Your task to perform on an android device: Add logitech g pro to the cart on bestbuy Image 0: 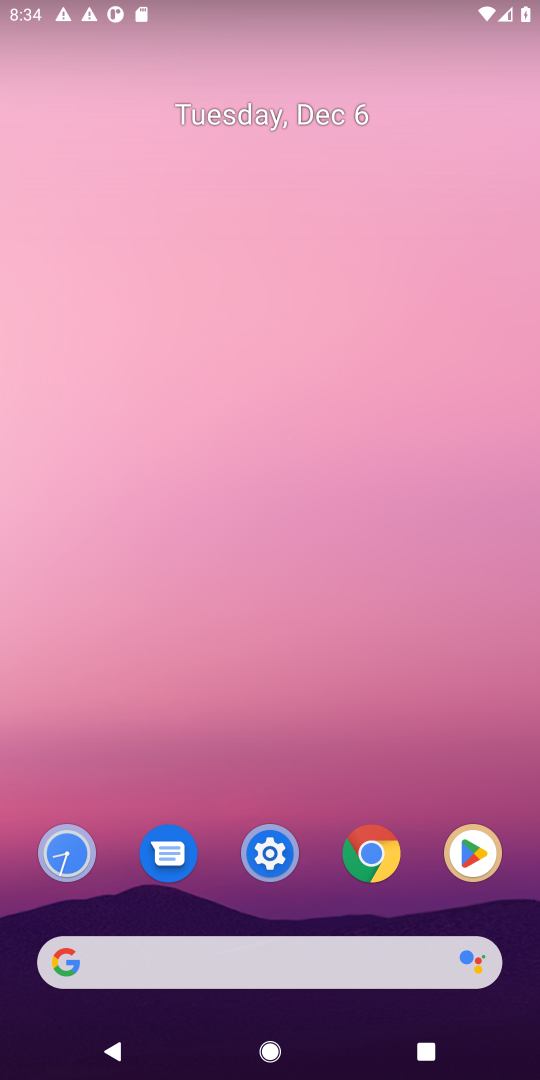
Step 0: drag from (254, 954) to (272, 167)
Your task to perform on an android device: Add logitech g pro to the cart on bestbuy Image 1: 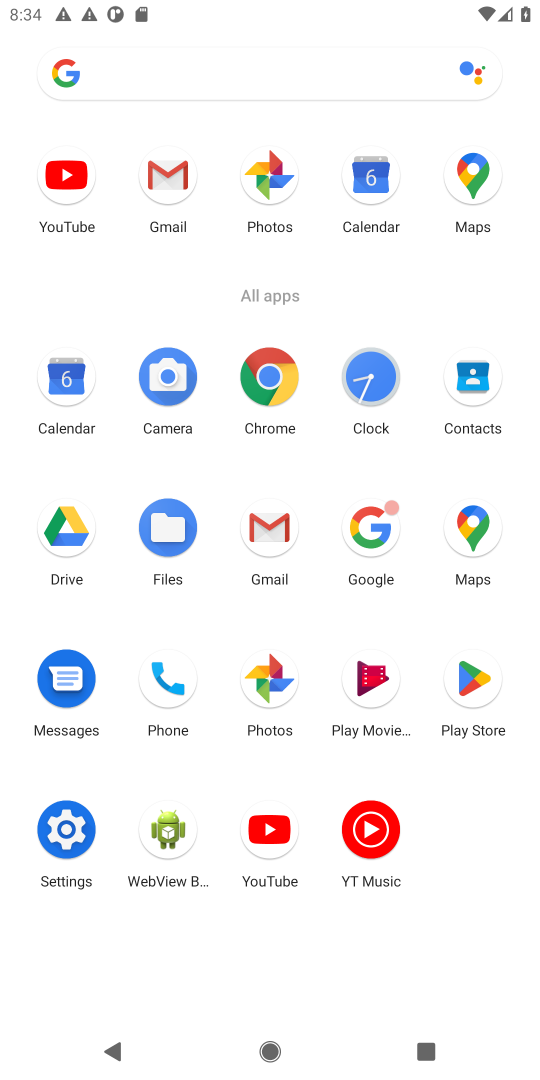
Step 1: click (373, 540)
Your task to perform on an android device: Add logitech g pro to the cart on bestbuy Image 2: 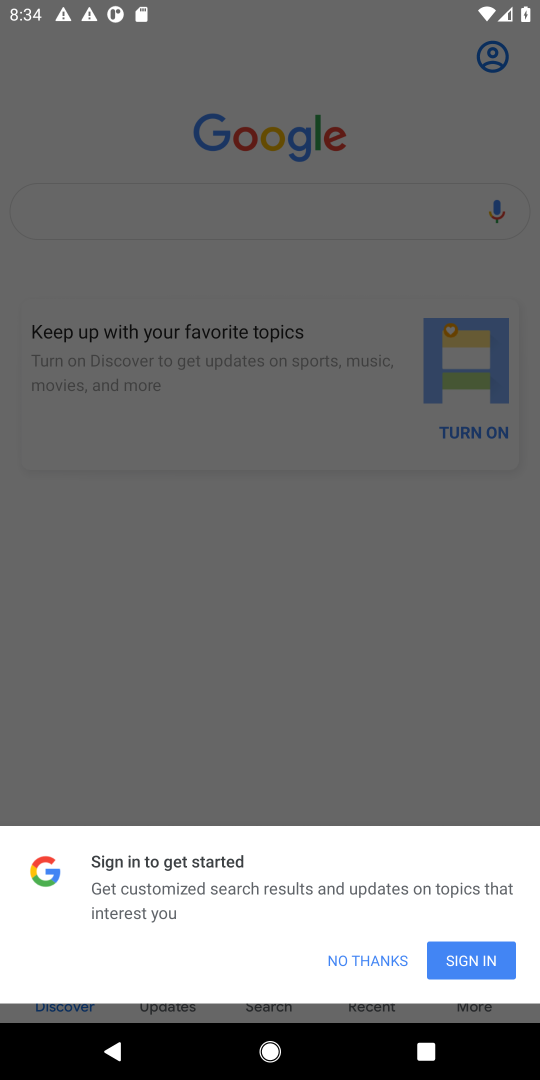
Step 2: click (366, 966)
Your task to perform on an android device: Add logitech g pro to the cart on bestbuy Image 3: 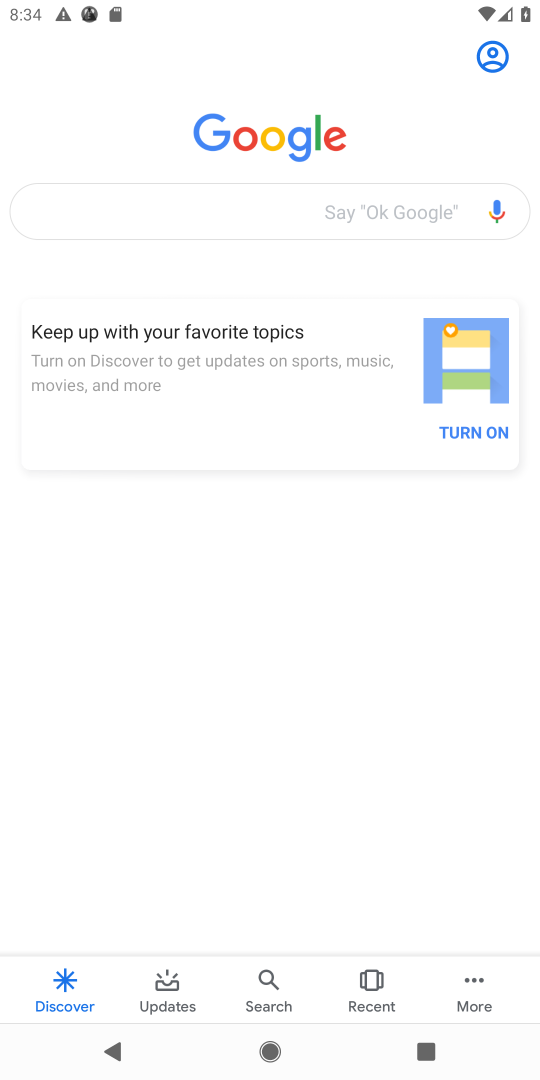
Step 3: click (213, 196)
Your task to perform on an android device: Add logitech g pro to the cart on bestbuy Image 4: 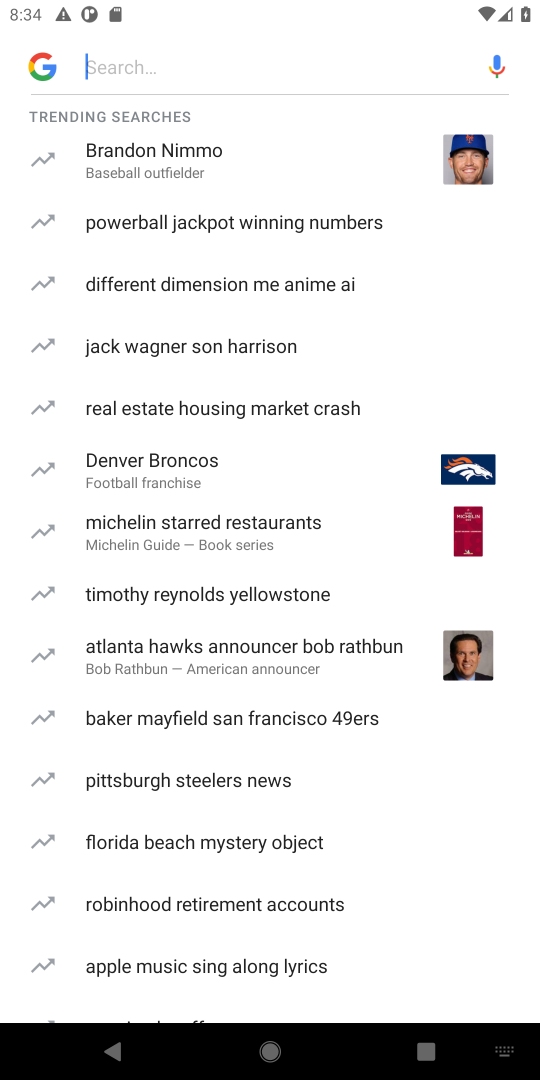
Step 4: type "bestbuy"
Your task to perform on an android device: Add logitech g pro to the cart on bestbuy Image 5: 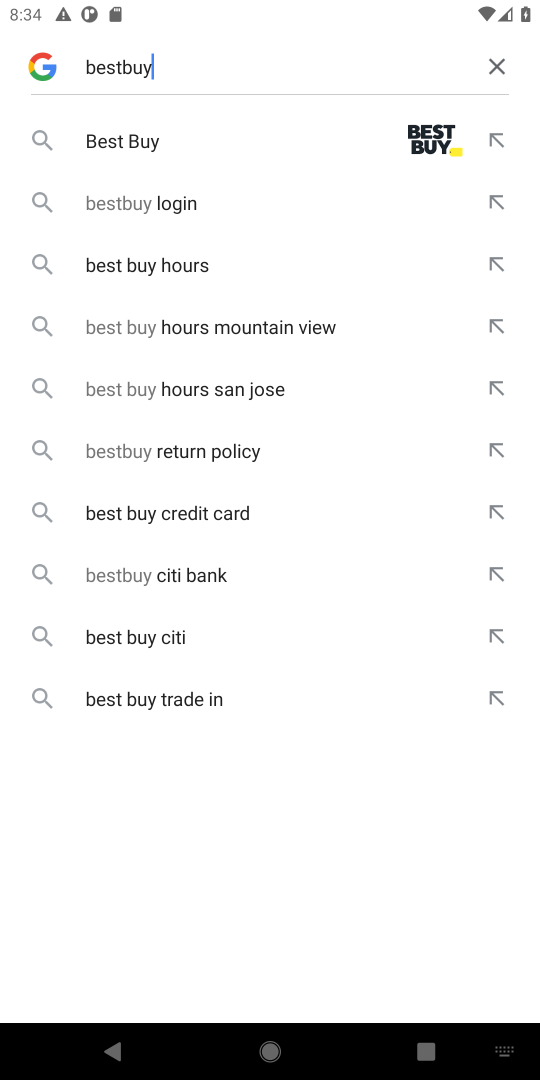
Step 5: click (127, 135)
Your task to perform on an android device: Add logitech g pro to the cart on bestbuy Image 6: 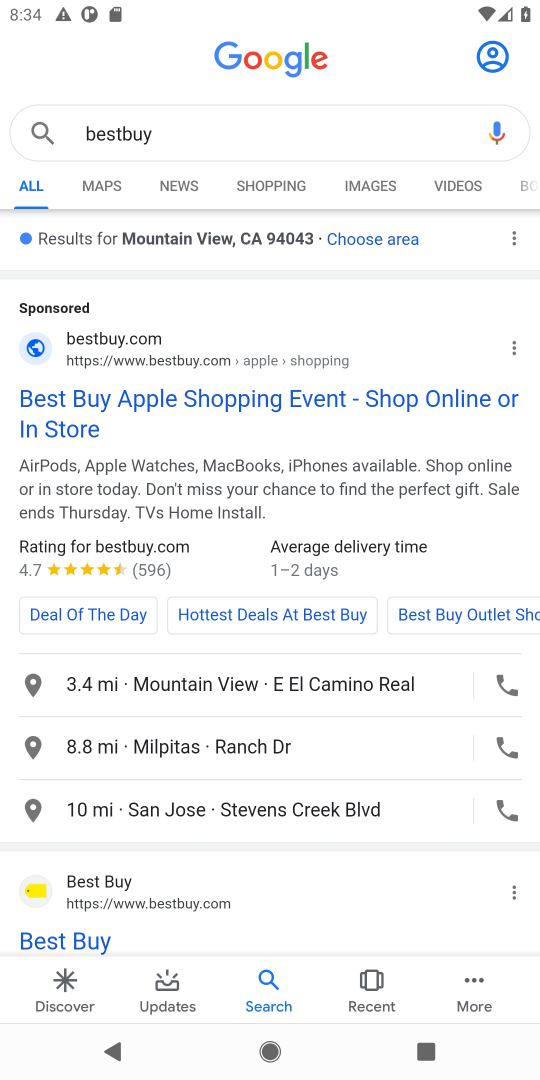
Step 6: click (144, 391)
Your task to perform on an android device: Add logitech g pro to the cart on bestbuy Image 7: 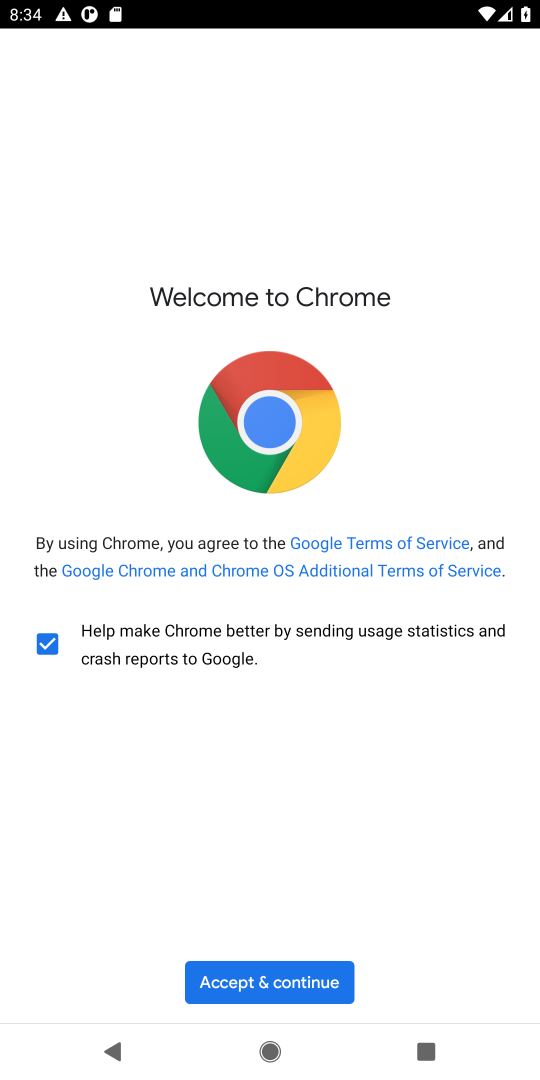
Step 7: click (289, 994)
Your task to perform on an android device: Add logitech g pro to the cart on bestbuy Image 8: 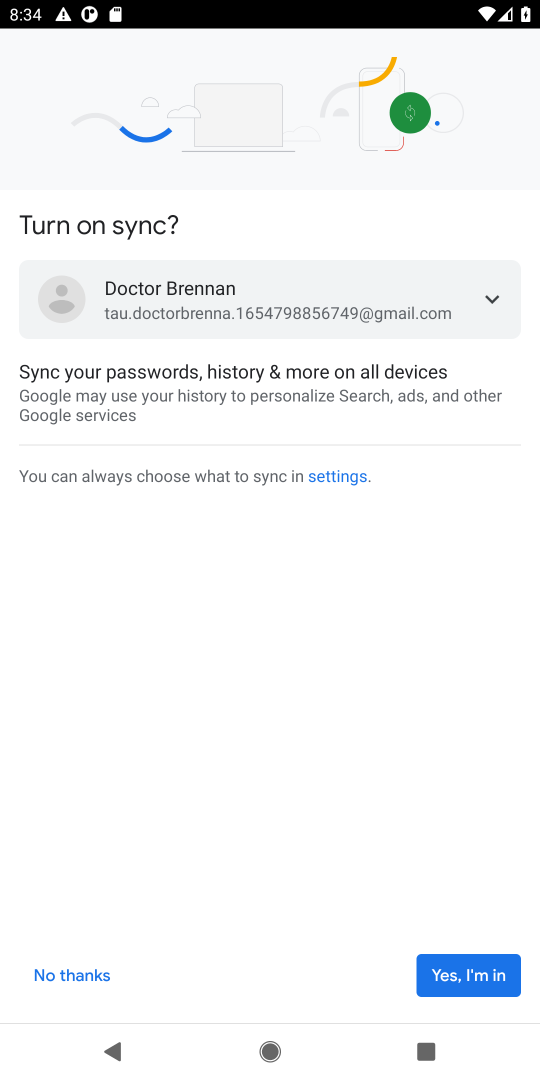
Step 8: click (437, 982)
Your task to perform on an android device: Add logitech g pro to the cart on bestbuy Image 9: 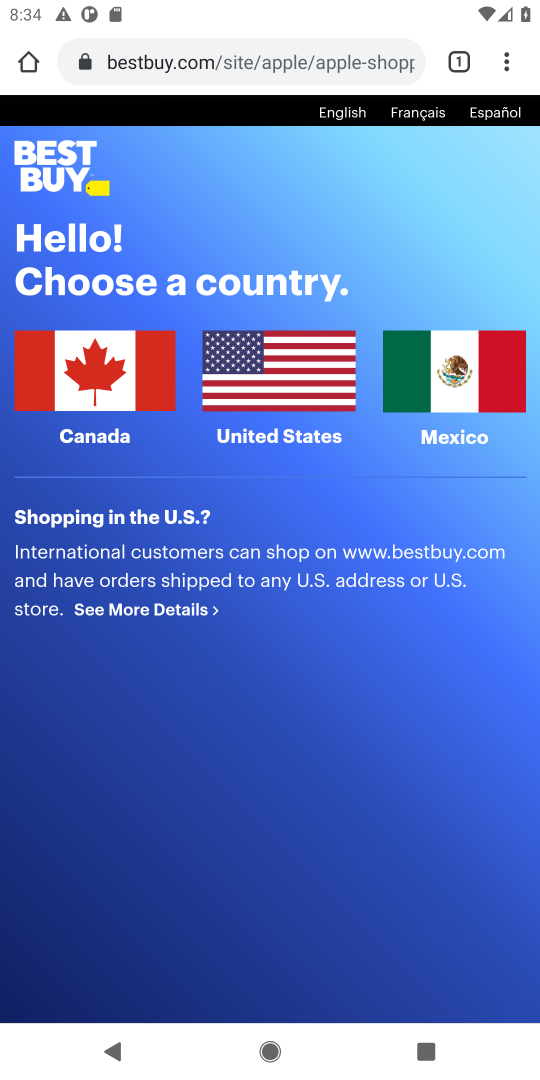
Step 9: click (272, 371)
Your task to perform on an android device: Add logitech g pro to the cart on bestbuy Image 10: 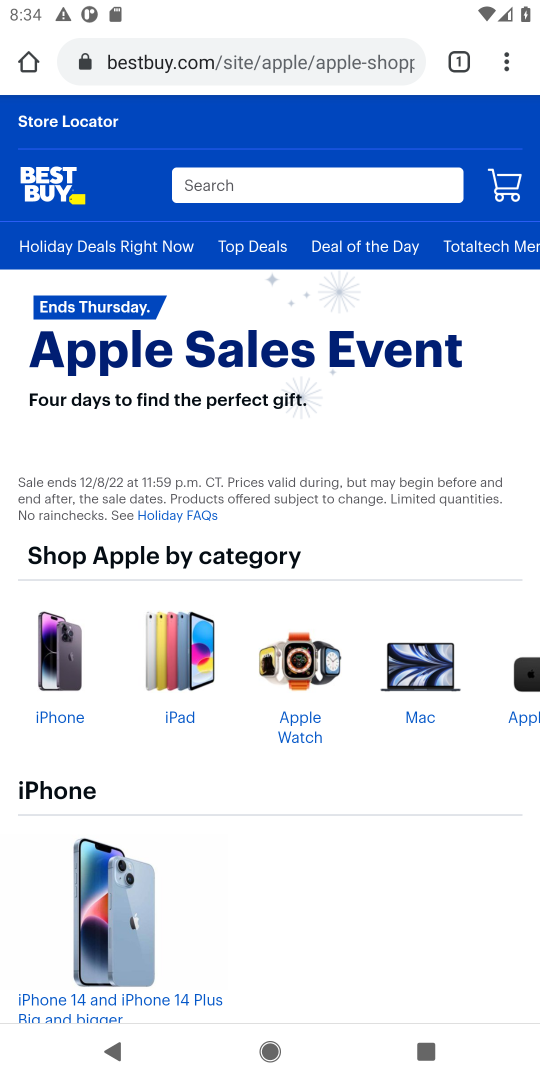
Step 10: click (223, 201)
Your task to perform on an android device: Add logitech g pro to the cart on bestbuy Image 11: 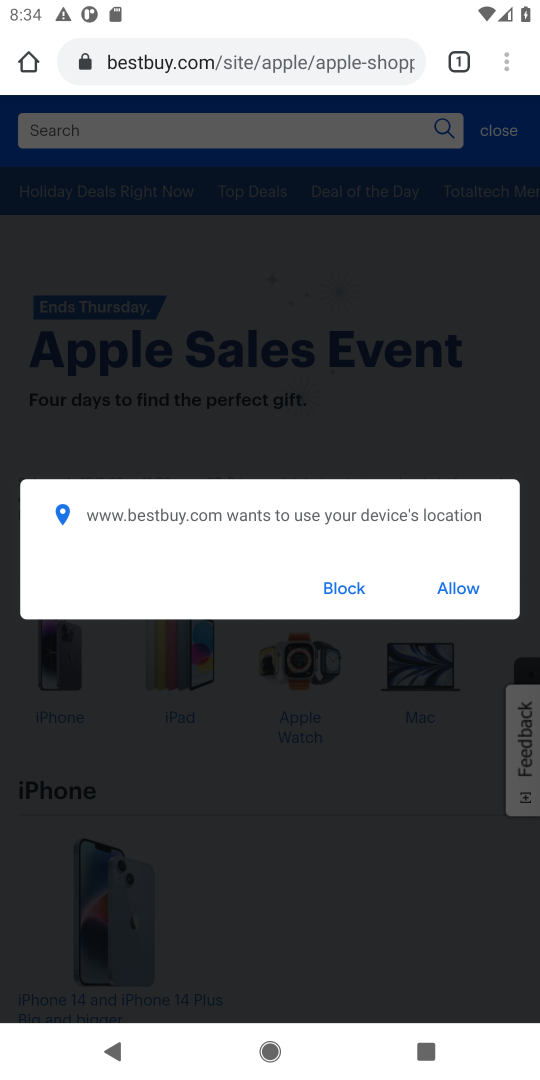
Step 11: click (462, 583)
Your task to perform on an android device: Add logitech g pro to the cart on bestbuy Image 12: 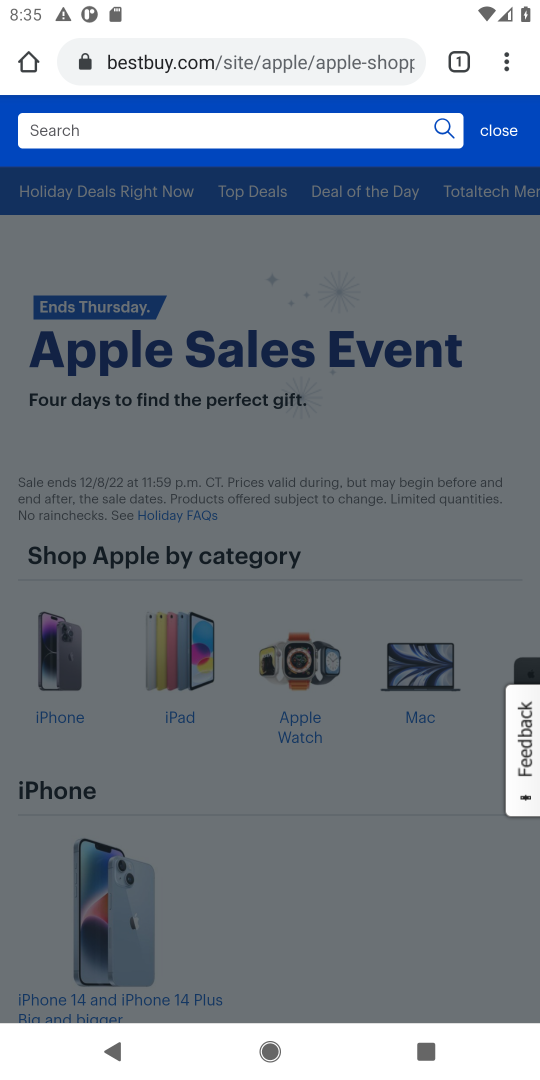
Step 12: click (55, 124)
Your task to perform on an android device: Add logitech g pro to the cart on bestbuy Image 13: 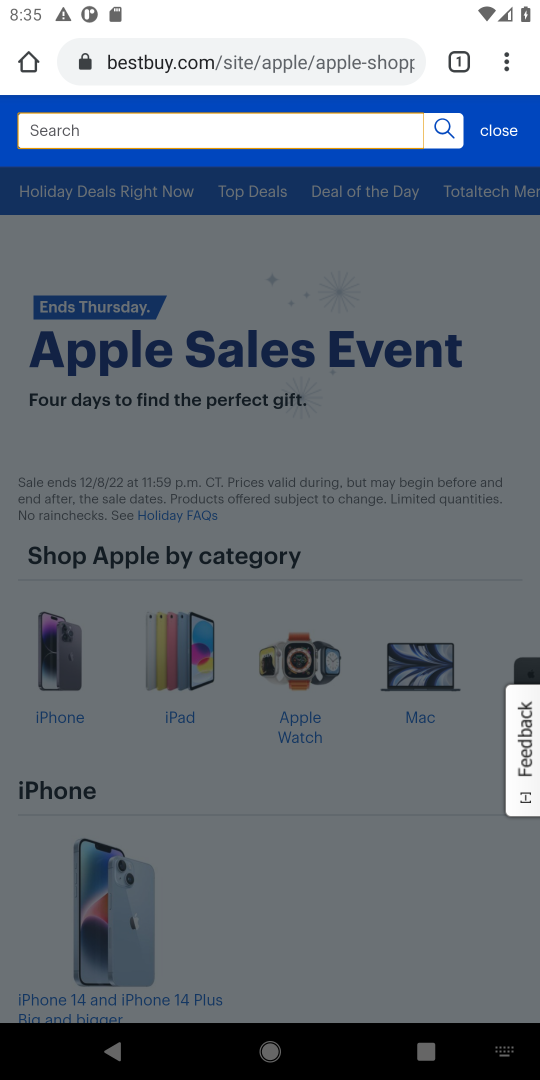
Step 13: type "logitech g pro"
Your task to perform on an android device: Add logitech g pro to the cart on bestbuy Image 14: 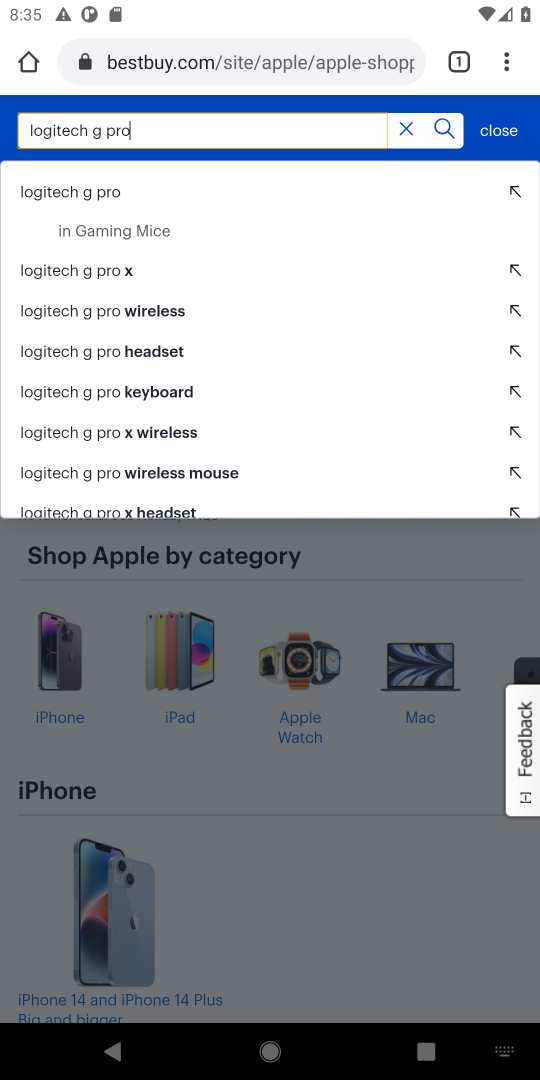
Step 14: click (67, 196)
Your task to perform on an android device: Add logitech g pro to the cart on bestbuy Image 15: 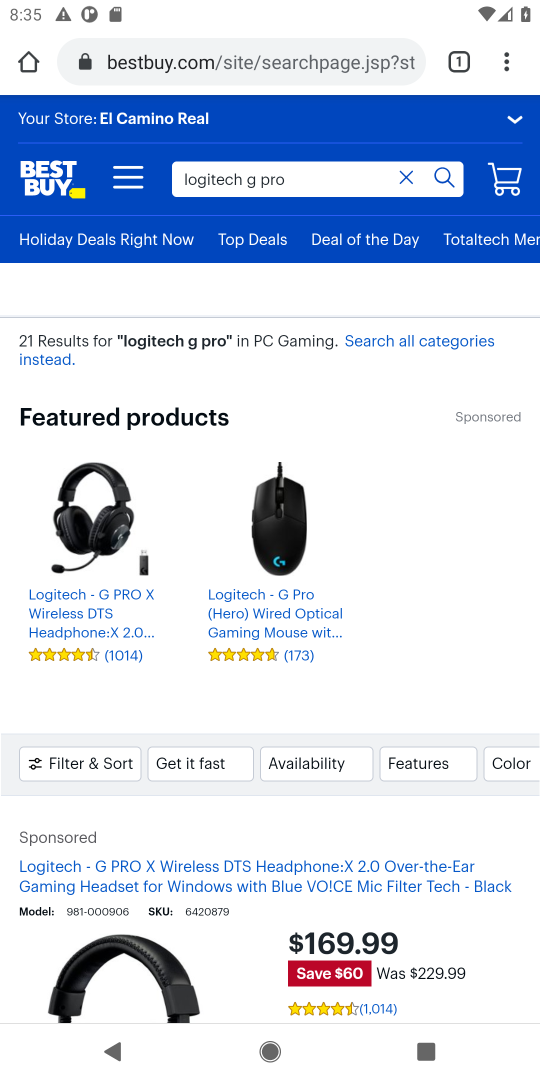
Step 15: drag from (241, 925) to (241, 376)
Your task to perform on an android device: Add logitech g pro to the cart on bestbuy Image 16: 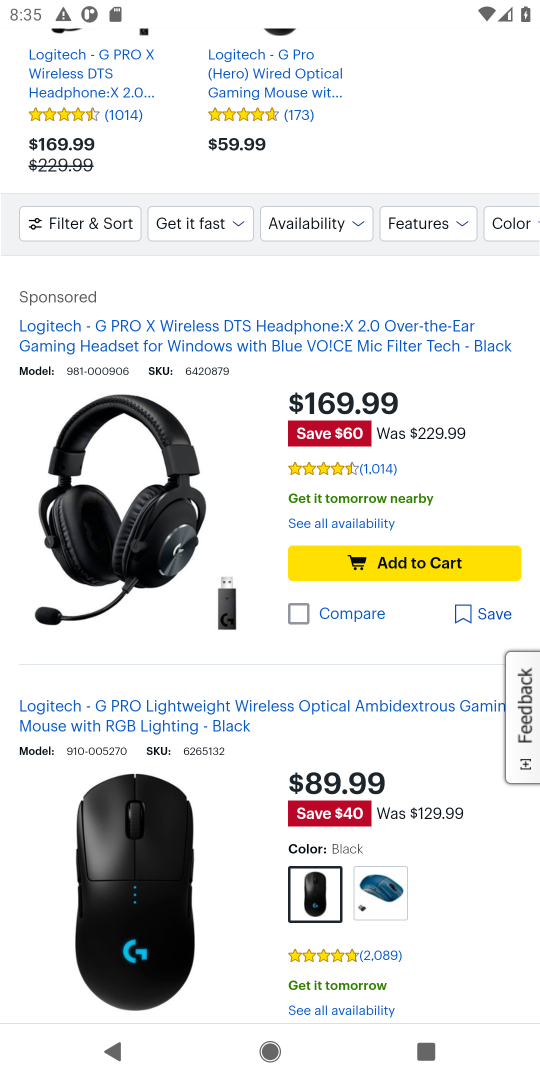
Step 16: click (421, 568)
Your task to perform on an android device: Add logitech g pro to the cart on bestbuy Image 17: 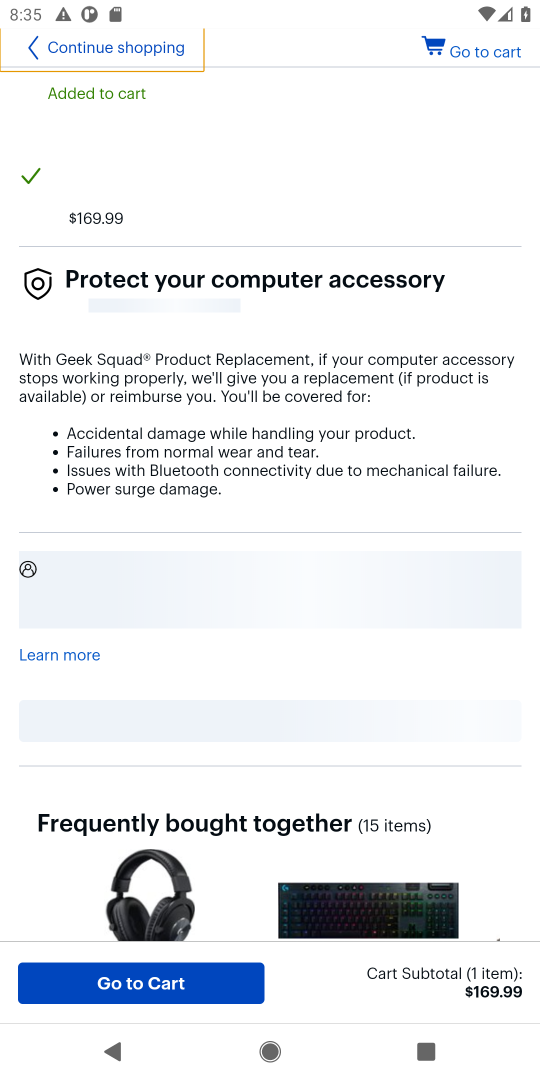
Step 17: task complete